Your task to perform on an android device: What's the weather? Image 0: 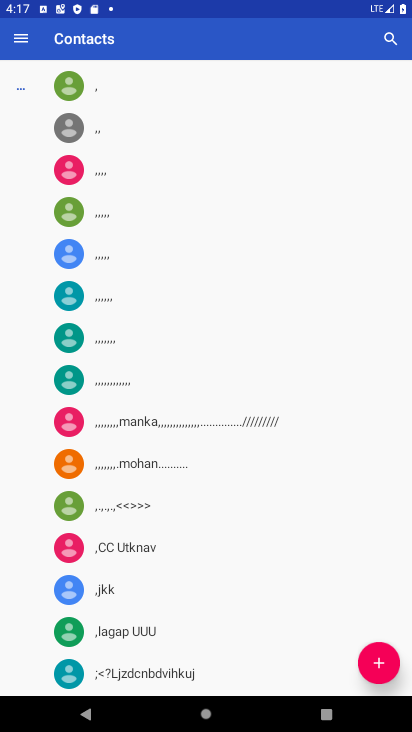
Step 0: press home button
Your task to perform on an android device: What's the weather? Image 1: 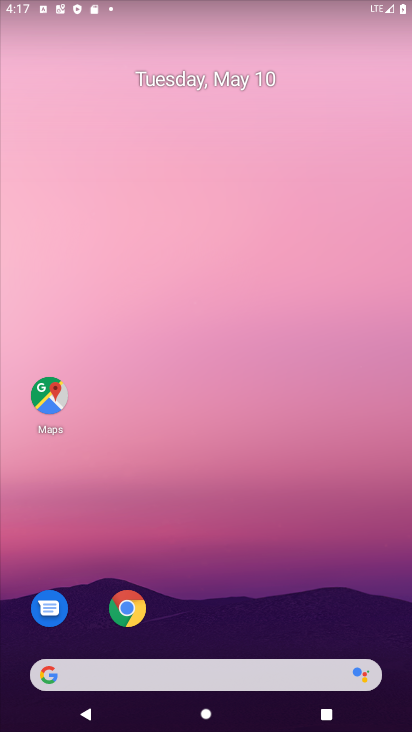
Step 1: drag from (12, 125) to (401, 292)
Your task to perform on an android device: What's the weather? Image 2: 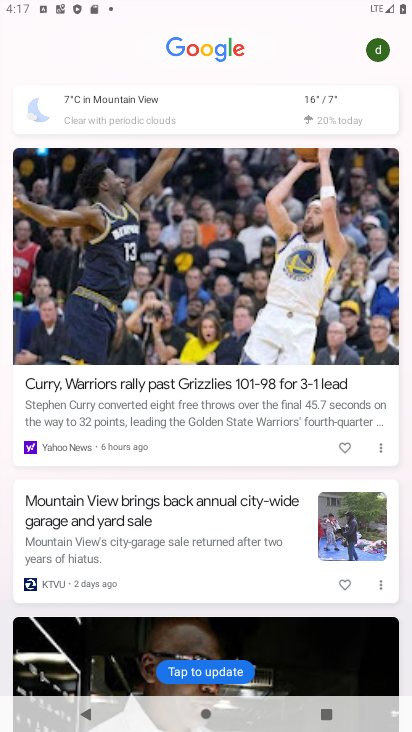
Step 2: click (88, 104)
Your task to perform on an android device: What's the weather? Image 3: 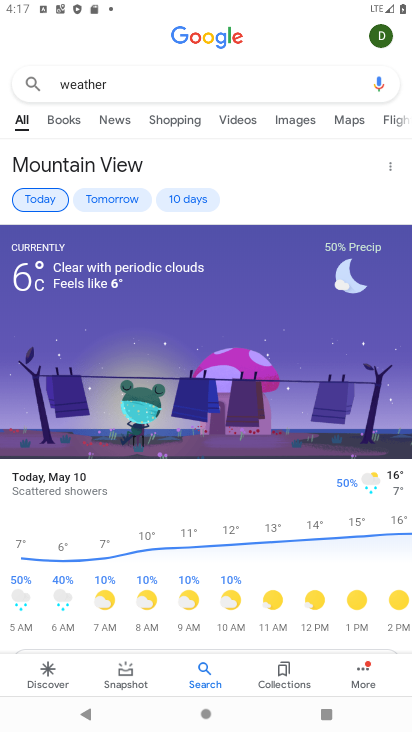
Step 3: task complete